Your task to perform on an android device: Open calendar and show me the fourth week of next month Image 0: 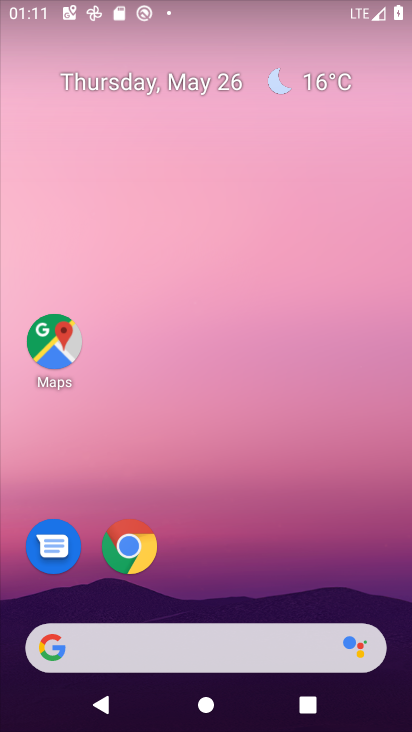
Step 0: drag from (204, 586) to (314, 189)
Your task to perform on an android device: Open calendar and show me the fourth week of next month Image 1: 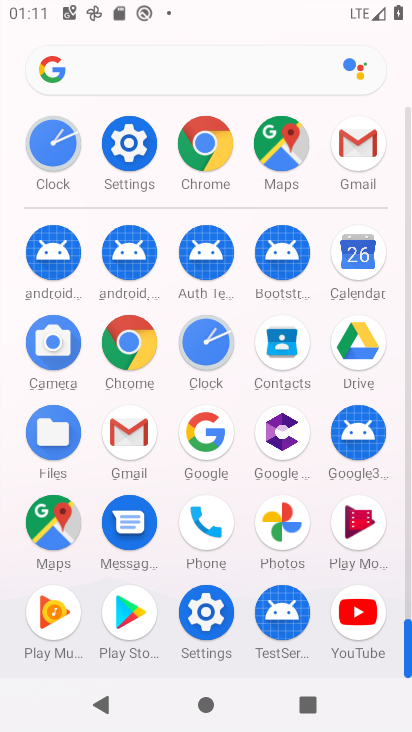
Step 1: click (365, 266)
Your task to perform on an android device: Open calendar and show me the fourth week of next month Image 2: 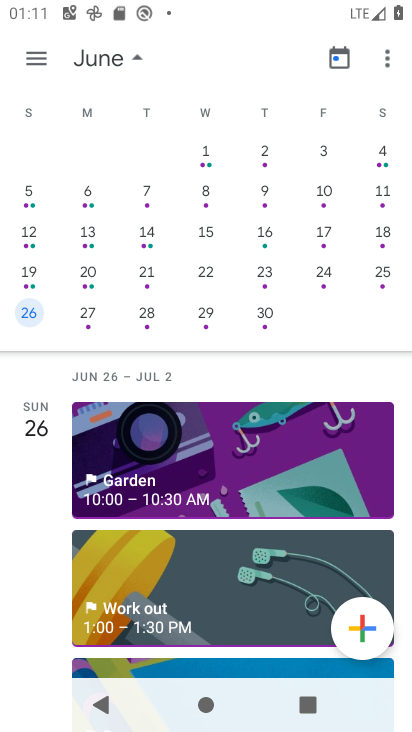
Step 2: click (34, 276)
Your task to perform on an android device: Open calendar and show me the fourth week of next month Image 3: 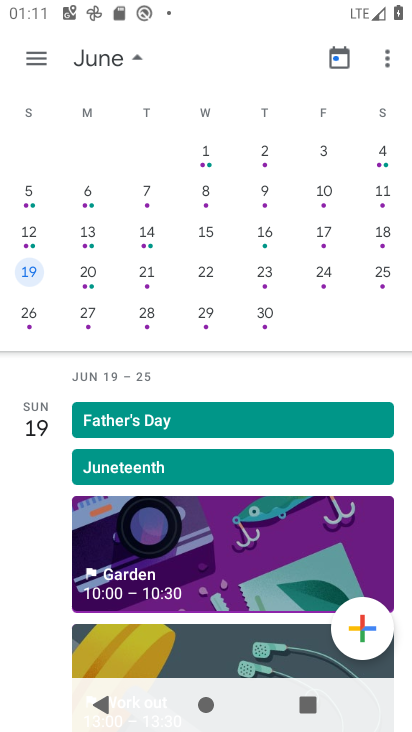
Step 3: click (88, 274)
Your task to perform on an android device: Open calendar and show me the fourth week of next month Image 4: 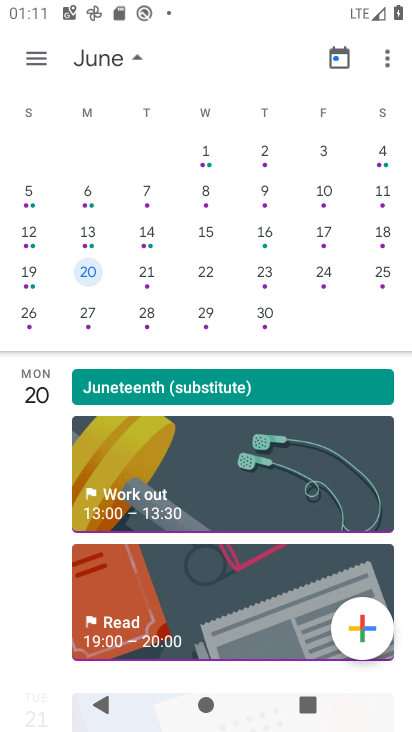
Step 4: click (156, 275)
Your task to perform on an android device: Open calendar and show me the fourth week of next month Image 5: 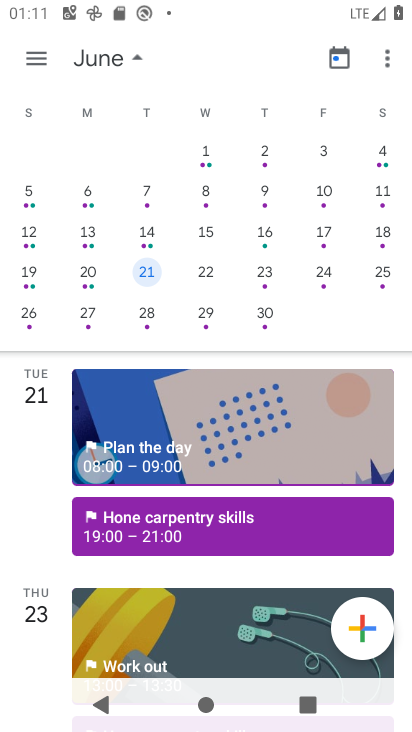
Step 5: click (216, 272)
Your task to perform on an android device: Open calendar and show me the fourth week of next month Image 6: 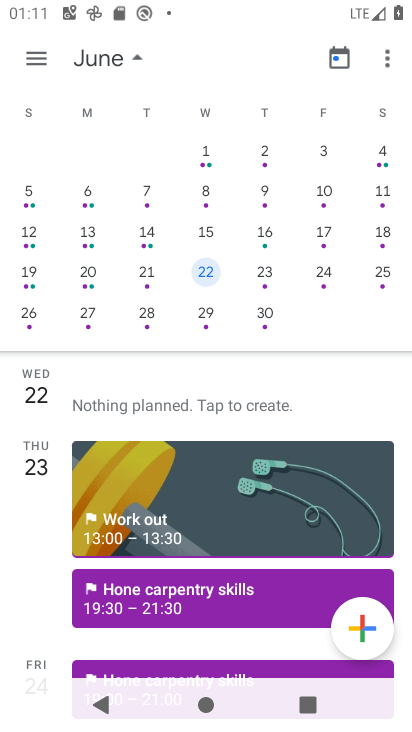
Step 6: click (268, 269)
Your task to perform on an android device: Open calendar and show me the fourth week of next month Image 7: 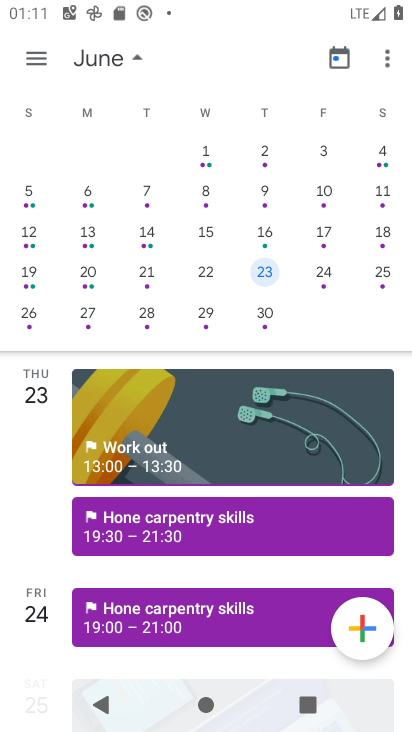
Step 7: click (319, 266)
Your task to perform on an android device: Open calendar and show me the fourth week of next month Image 8: 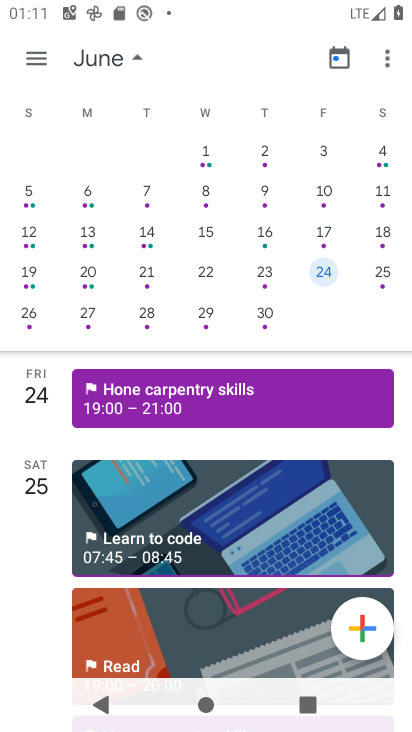
Step 8: click (376, 269)
Your task to perform on an android device: Open calendar and show me the fourth week of next month Image 9: 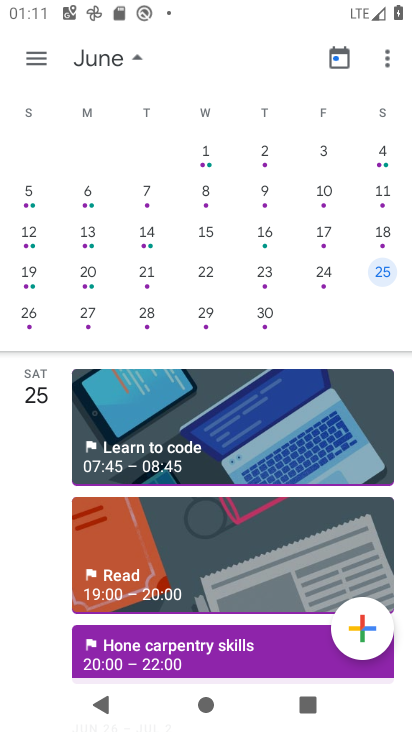
Step 9: task complete